Your task to perform on an android device: turn off airplane mode Image 0: 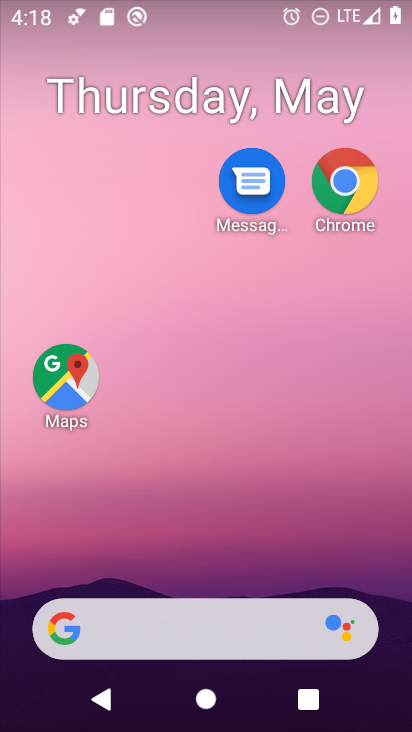
Step 0: drag from (249, 623) to (253, 135)
Your task to perform on an android device: turn off airplane mode Image 1: 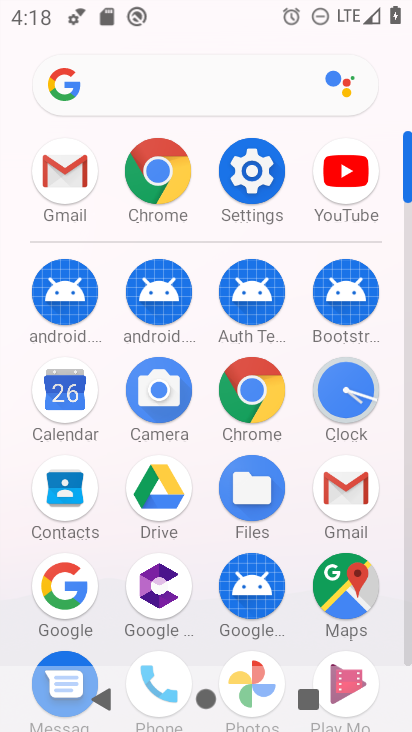
Step 1: click (271, 159)
Your task to perform on an android device: turn off airplane mode Image 2: 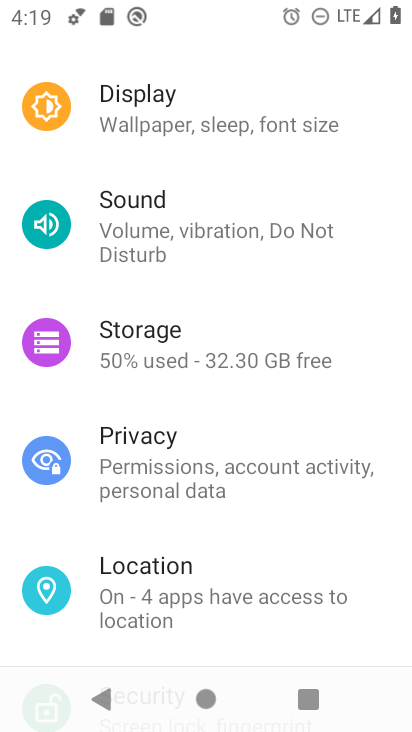
Step 2: drag from (256, 130) to (232, 629)
Your task to perform on an android device: turn off airplane mode Image 3: 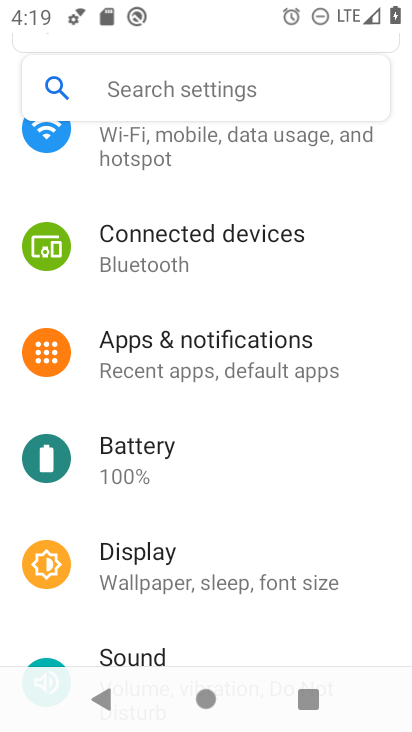
Step 3: drag from (224, 246) to (253, 673)
Your task to perform on an android device: turn off airplane mode Image 4: 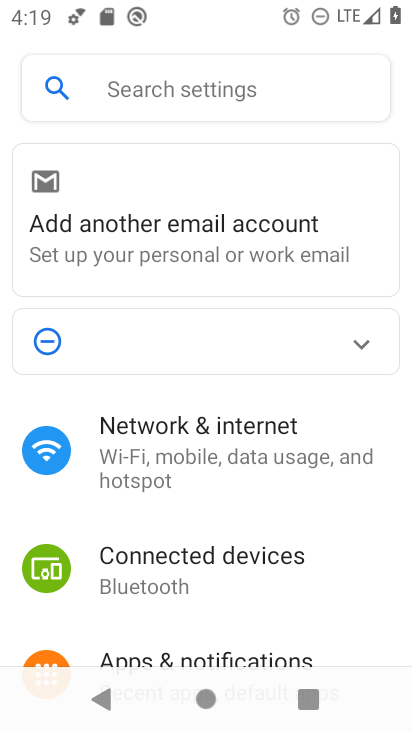
Step 4: click (196, 485)
Your task to perform on an android device: turn off airplane mode Image 5: 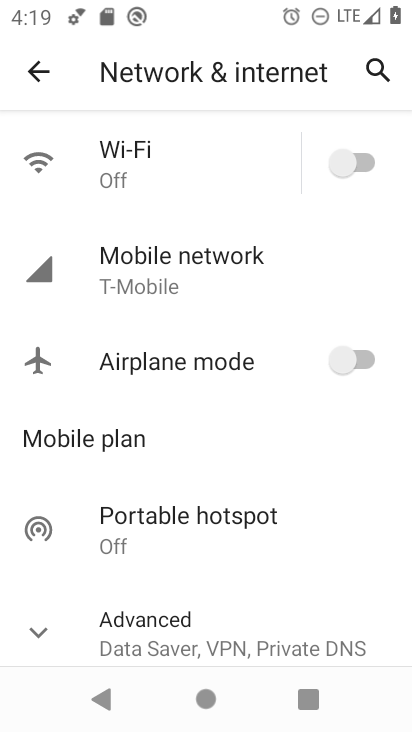
Step 5: task complete